Your task to perform on an android device: open app "Life360: Find Family & Friends" (install if not already installed) and go to login screen Image 0: 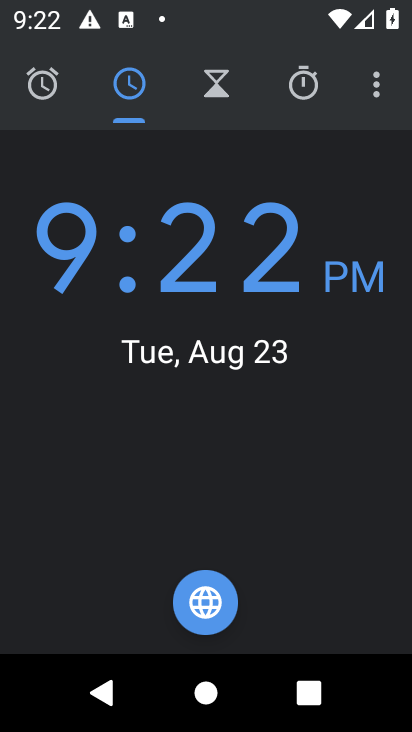
Step 0: press home button
Your task to perform on an android device: open app "Life360: Find Family & Friends" (install if not already installed) and go to login screen Image 1: 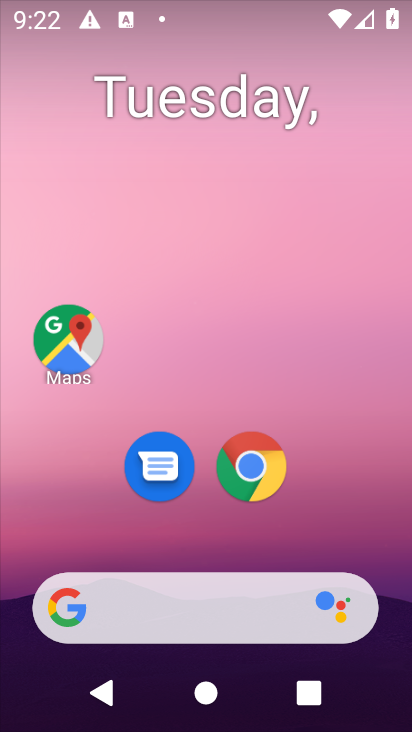
Step 1: drag from (206, 449) to (213, 99)
Your task to perform on an android device: open app "Life360: Find Family & Friends" (install if not already installed) and go to login screen Image 2: 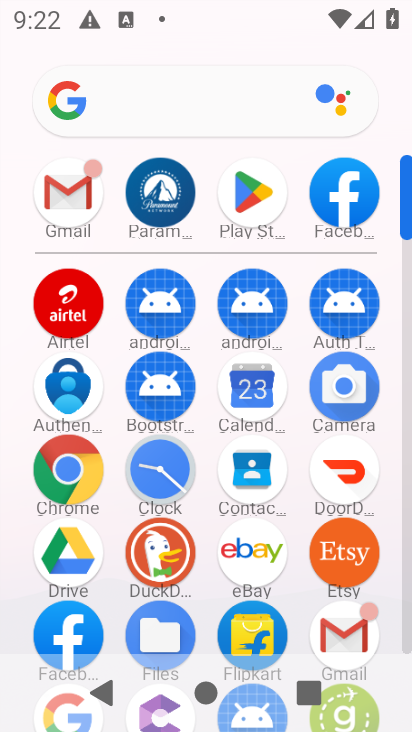
Step 2: click (245, 186)
Your task to perform on an android device: open app "Life360: Find Family & Friends" (install if not already installed) and go to login screen Image 3: 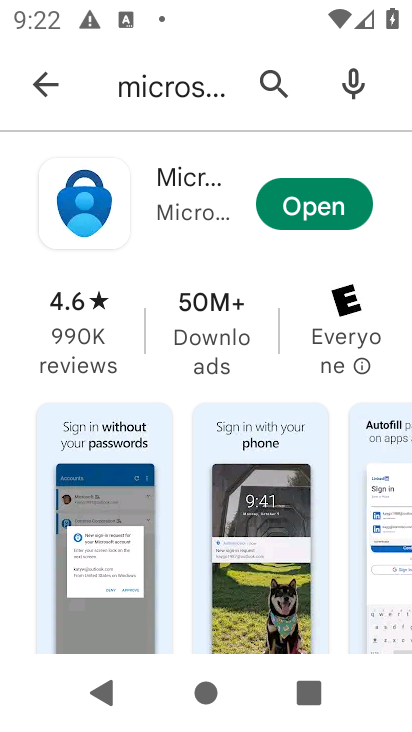
Step 3: click (268, 92)
Your task to perform on an android device: open app "Life360: Find Family & Friends" (install if not already installed) and go to login screen Image 4: 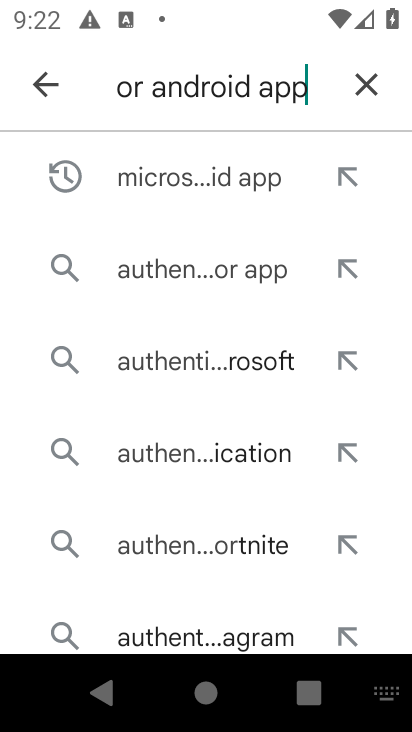
Step 4: click (357, 85)
Your task to perform on an android device: open app "Life360: Find Family & Friends" (install if not already installed) and go to login screen Image 5: 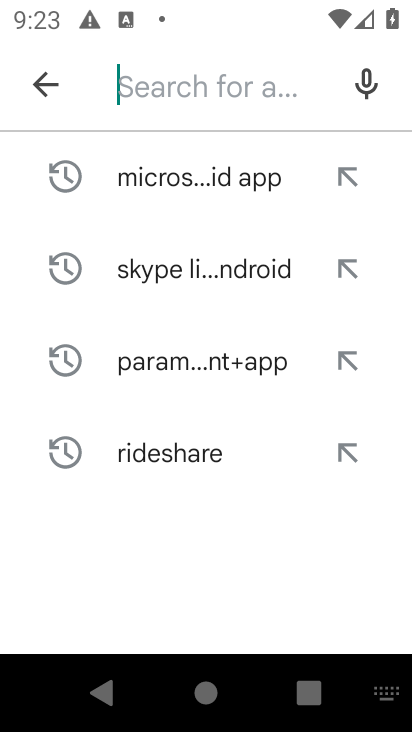
Step 5: click (106, 56)
Your task to perform on an android device: open app "Life360: Find Family & Friends" (install if not already installed) and go to login screen Image 6: 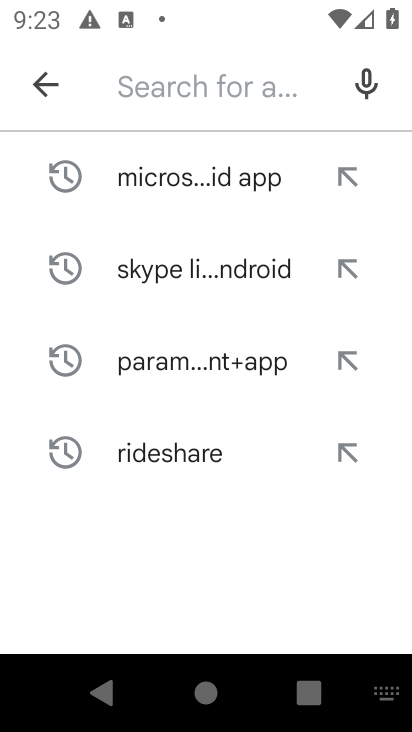
Step 6: type "life 360"
Your task to perform on an android device: open app "Life360: Find Family & Friends" (install if not already installed) and go to login screen Image 7: 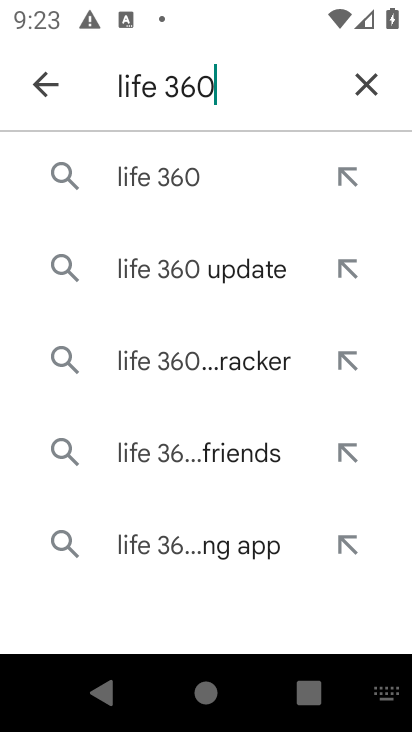
Step 7: click (171, 186)
Your task to perform on an android device: open app "Life360: Find Family & Friends" (install if not already installed) and go to login screen Image 8: 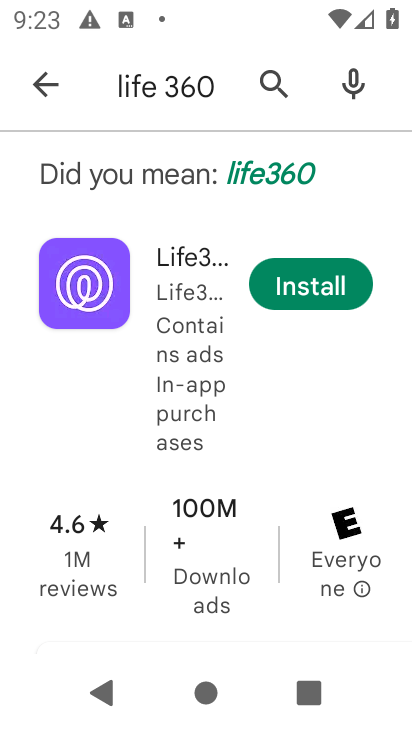
Step 8: click (298, 280)
Your task to perform on an android device: open app "Life360: Find Family & Friends" (install if not already installed) and go to login screen Image 9: 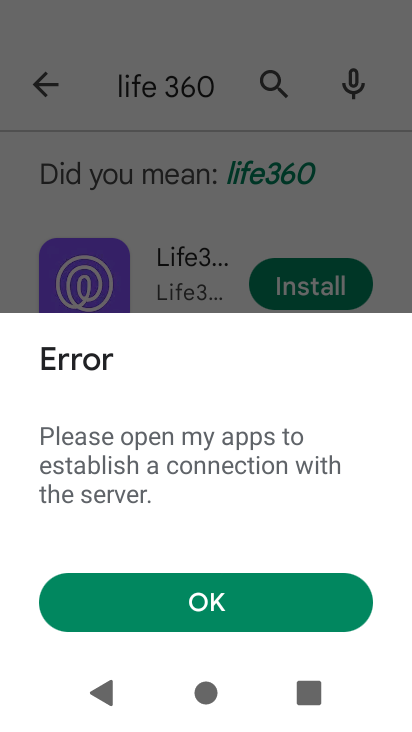
Step 9: click (155, 607)
Your task to perform on an android device: open app "Life360: Find Family & Friends" (install if not already installed) and go to login screen Image 10: 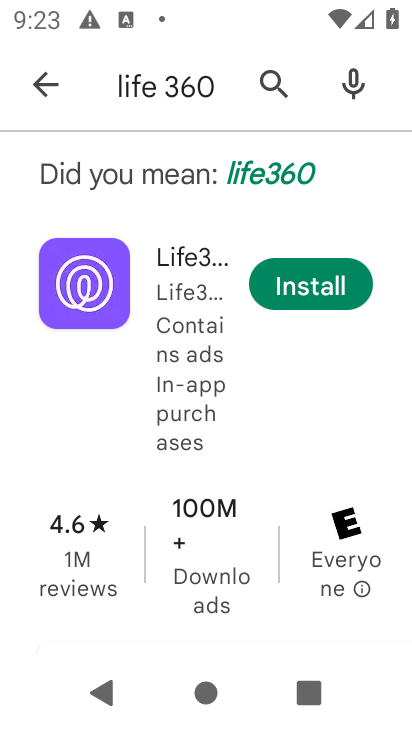
Step 10: task complete